Your task to perform on an android device: What's the weather today? Image 0: 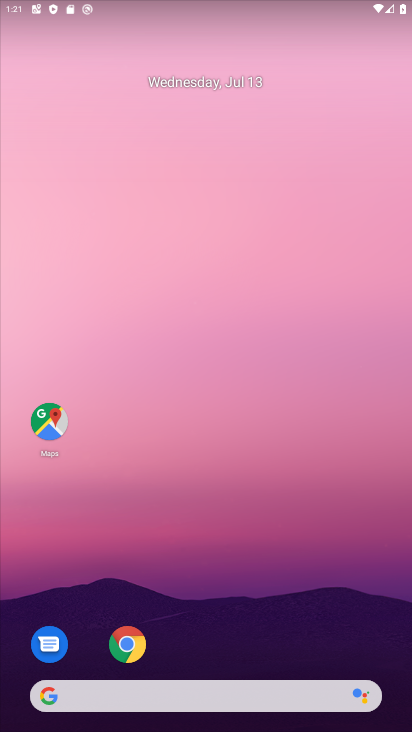
Step 0: press home button
Your task to perform on an android device: What's the weather today? Image 1: 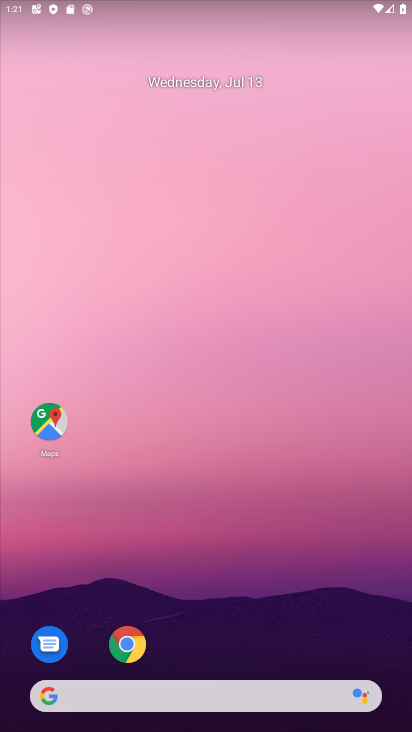
Step 1: click (191, 702)
Your task to perform on an android device: What's the weather today? Image 2: 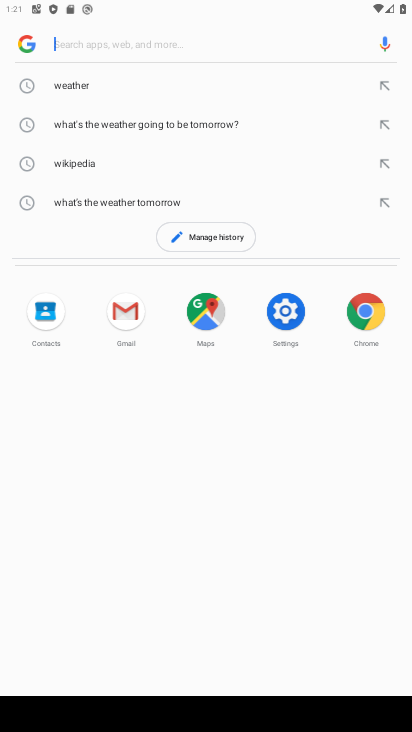
Step 2: type "What's the weather today?"
Your task to perform on an android device: What's the weather today? Image 3: 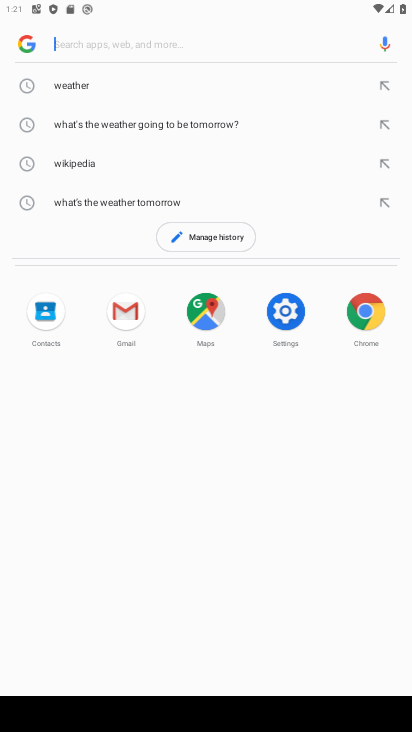
Step 3: click (96, 42)
Your task to perform on an android device: What's the weather today? Image 4: 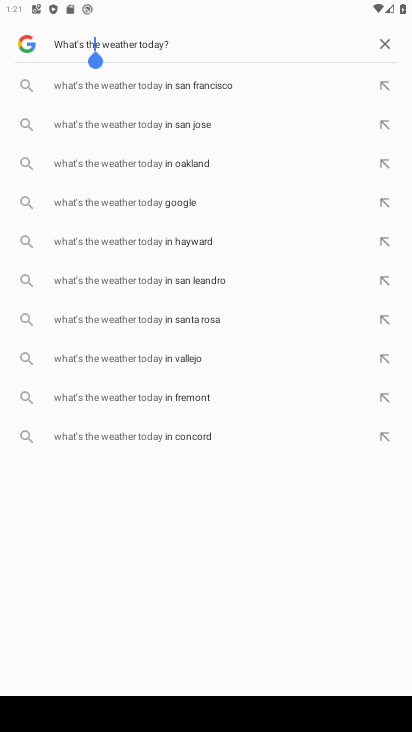
Step 4: press enter
Your task to perform on an android device: What's the weather today? Image 5: 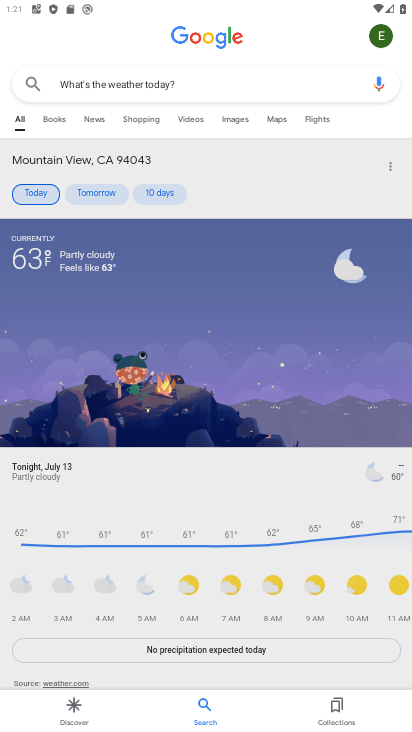
Step 5: task complete